Your task to perform on an android device: Open Amazon Image 0: 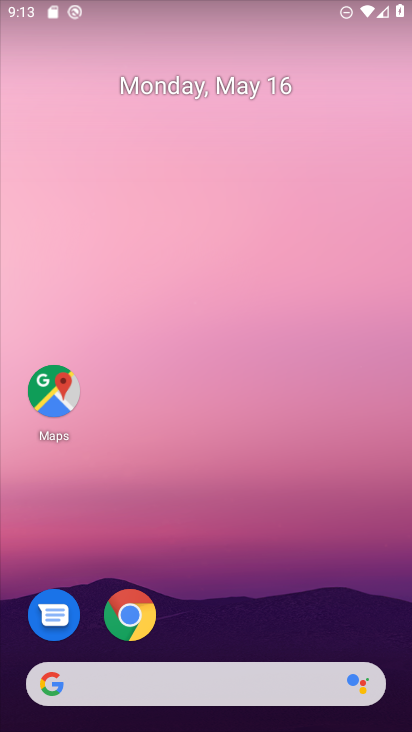
Step 0: click (138, 618)
Your task to perform on an android device: Open Amazon Image 1: 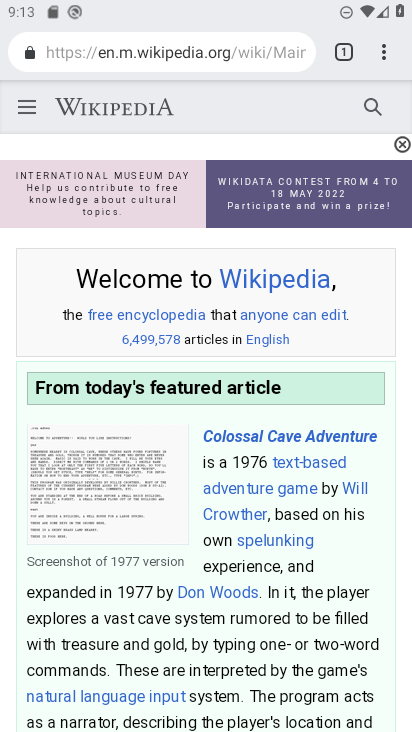
Step 1: click (341, 54)
Your task to perform on an android device: Open Amazon Image 2: 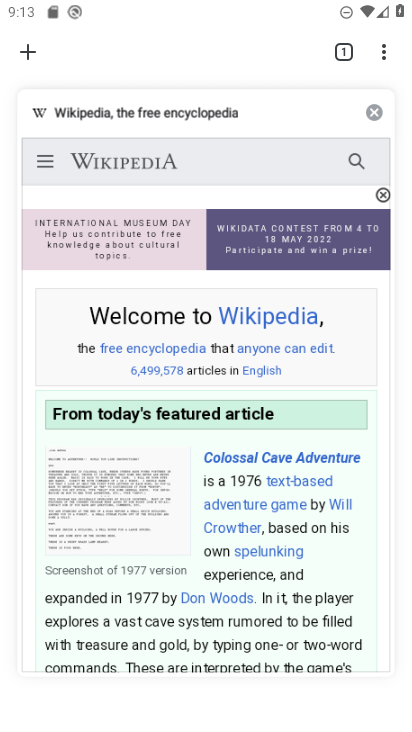
Step 2: click (374, 117)
Your task to perform on an android device: Open Amazon Image 3: 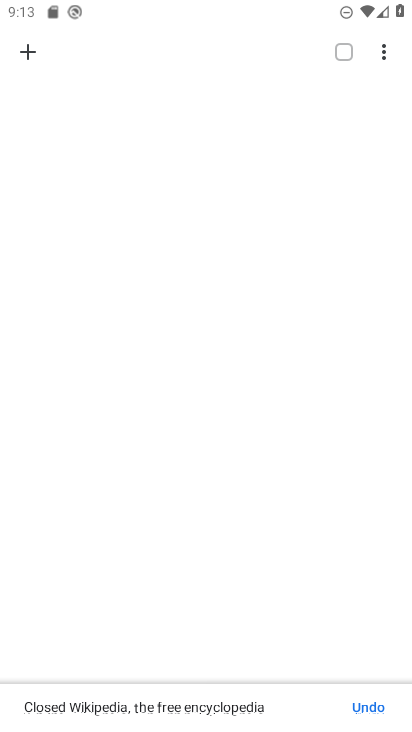
Step 3: click (35, 49)
Your task to perform on an android device: Open Amazon Image 4: 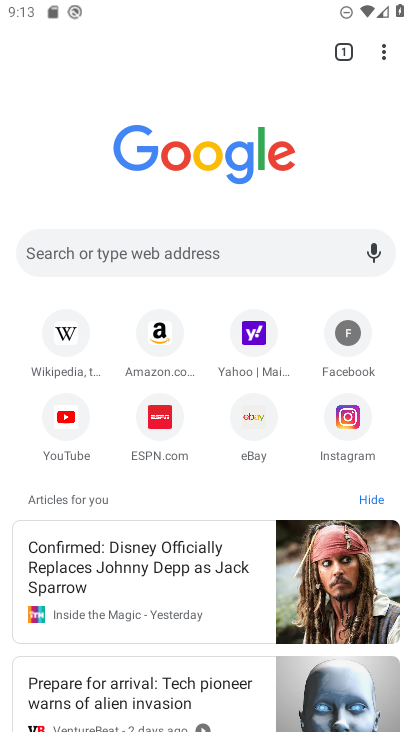
Step 4: click (166, 331)
Your task to perform on an android device: Open Amazon Image 5: 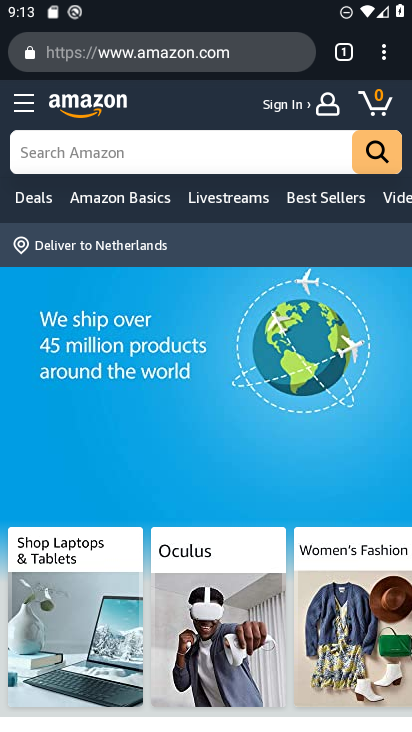
Step 5: task complete